Your task to perform on an android device: set the timer Image 0: 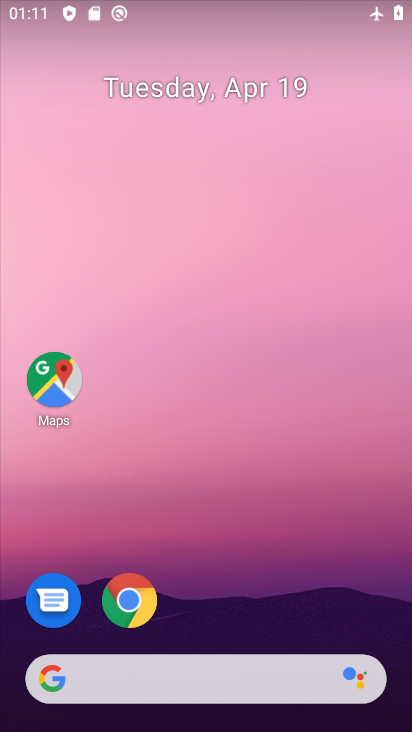
Step 0: drag from (192, 648) to (182, 32)
Your task to perform on an android device: set the timer Image 1: 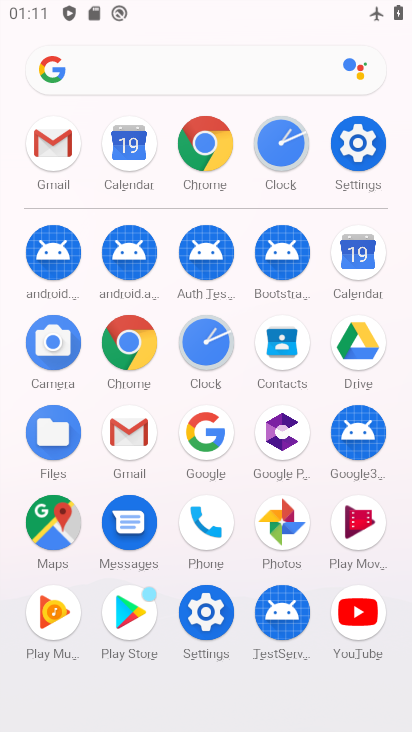
Step 1: click (195, 349)
Your task to perform on an android device: set the timer Image 2: 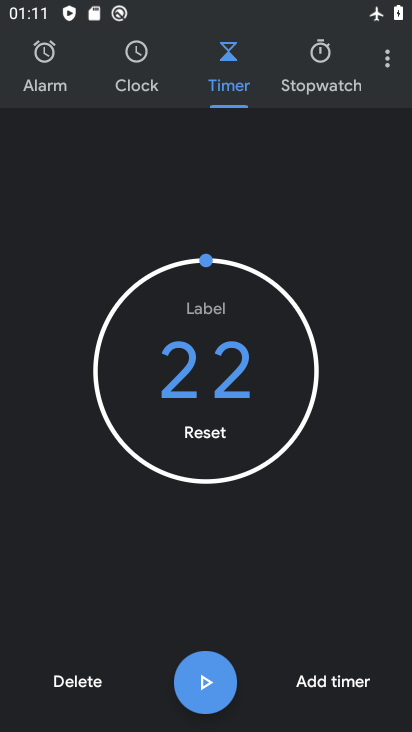
Step 2: click (386, 69)
Your task to perform on an android device: set the timer Image 3: 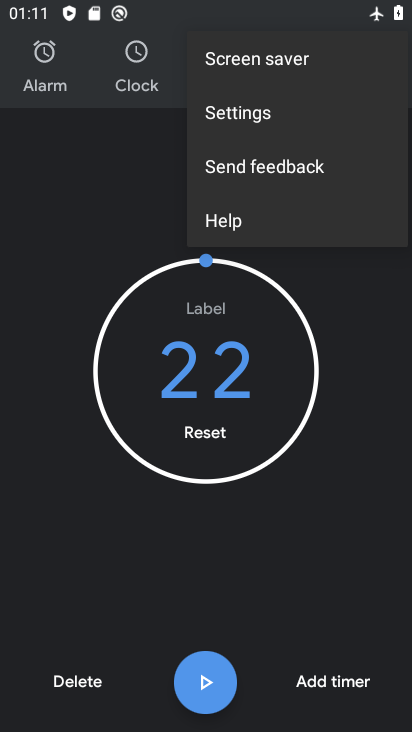
Step 3: click (284, 124)
Your task to perform on an android device: set the timer Image 4: 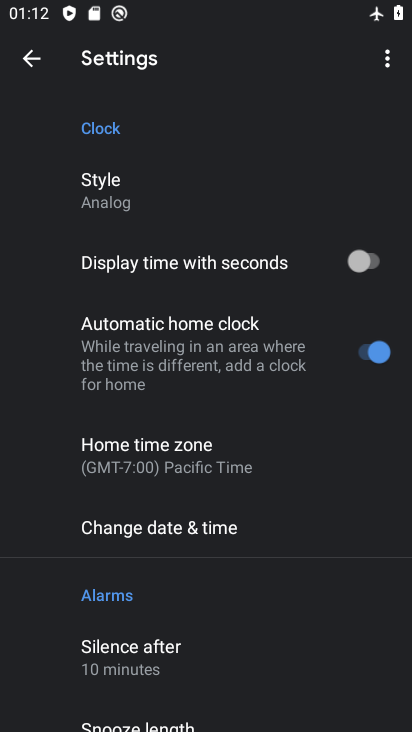
Step 4: click (40, 50)
Your task to perform on an android device: set the timer Image 5: 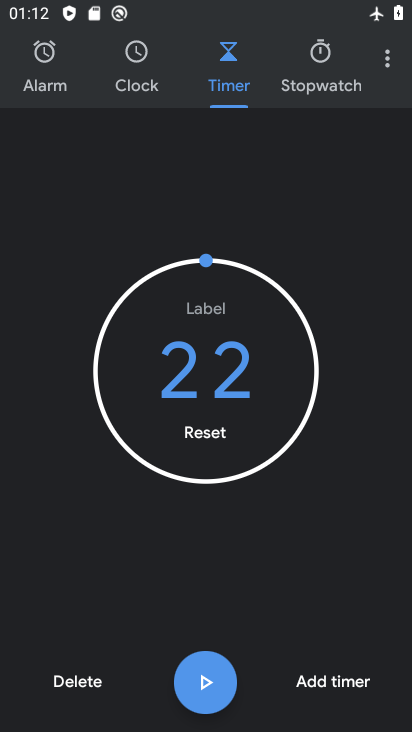
Step 5: click (201, 672)
Your task to perform on an android device: set the timer Image 6: 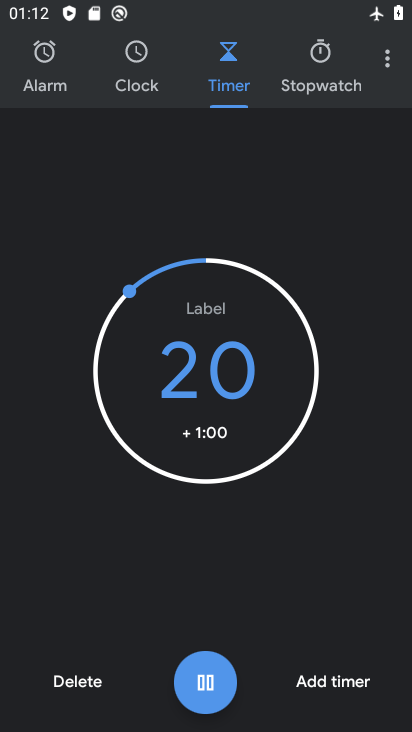
Step 6: click (216, 686)
Your task to perform on an android device: set the timer Image 7: 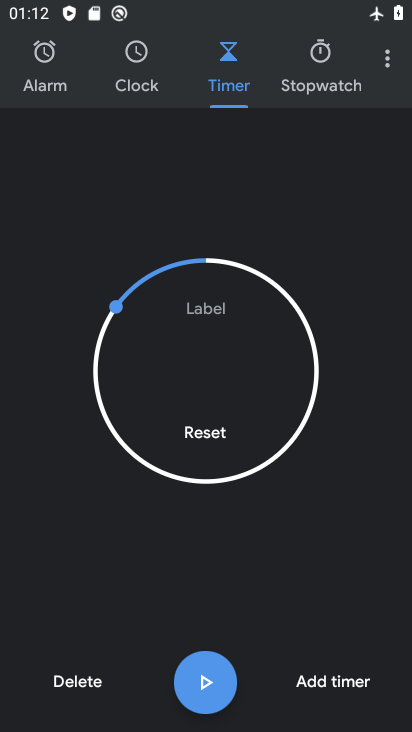
Step 7: task complete